Your task to perform on an android device: Search for "apple airpods pro" on newegg, select the first entry, and add it to the cart. Image 0: 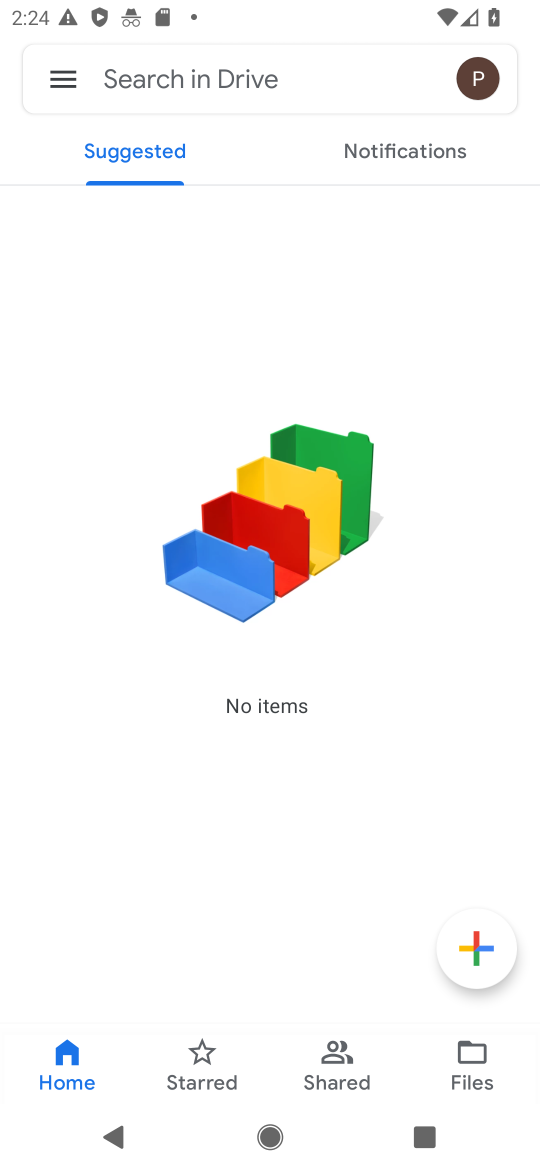
Step 0: task complete